Your task to perform on an android device: Search for flights from Zurich to Helsinki Image 0: 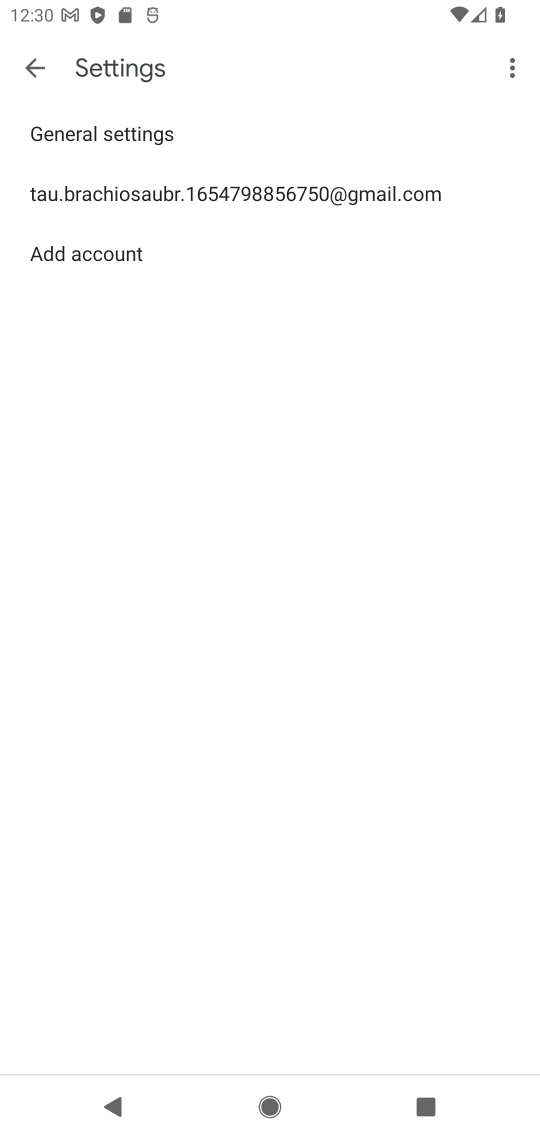
Step 0: press home button
Your task to perform on an android device: Search for flights from Zurich to Helsinki Image 1: 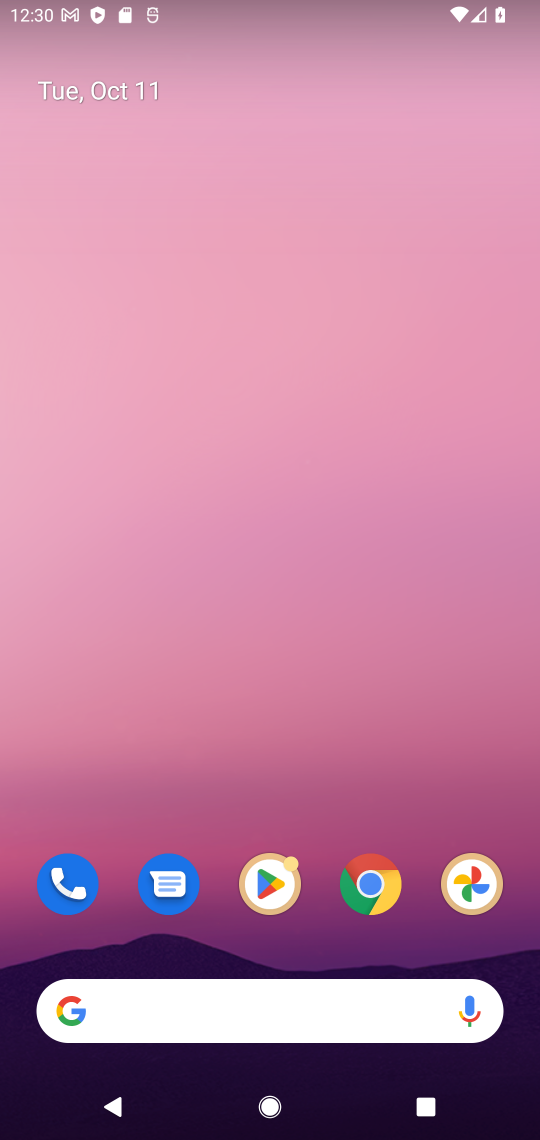
Step 1: drag from (285, 959) to (283, 301)
Your task to perform on an android device: Search for flights from Zurich to Helsinki Image 2: 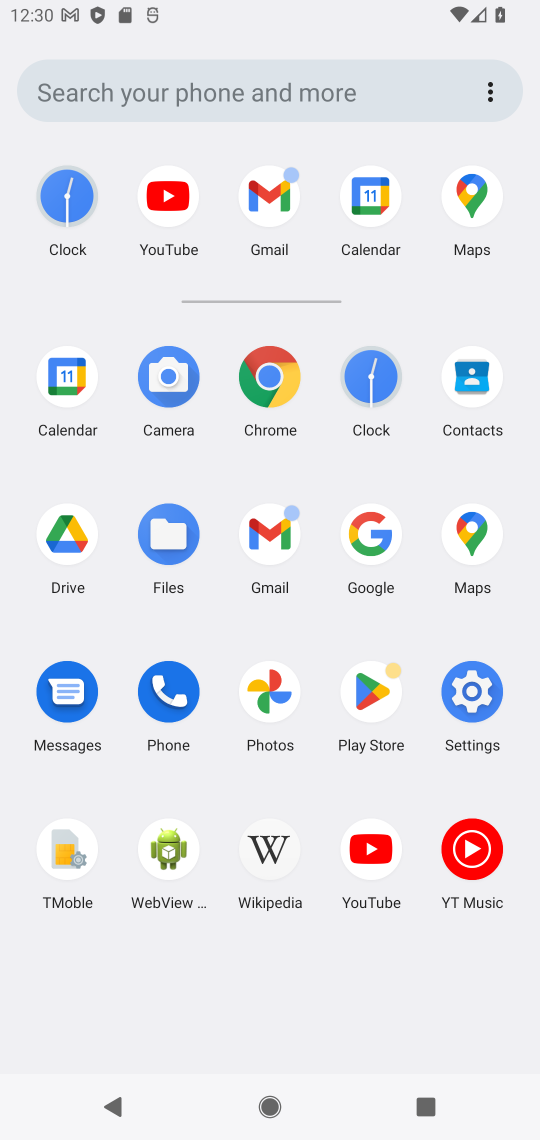
Step 2: click (389, 535)
Your task to perform on an android device: Search for flights from Zurich to Helsinki Image 3: 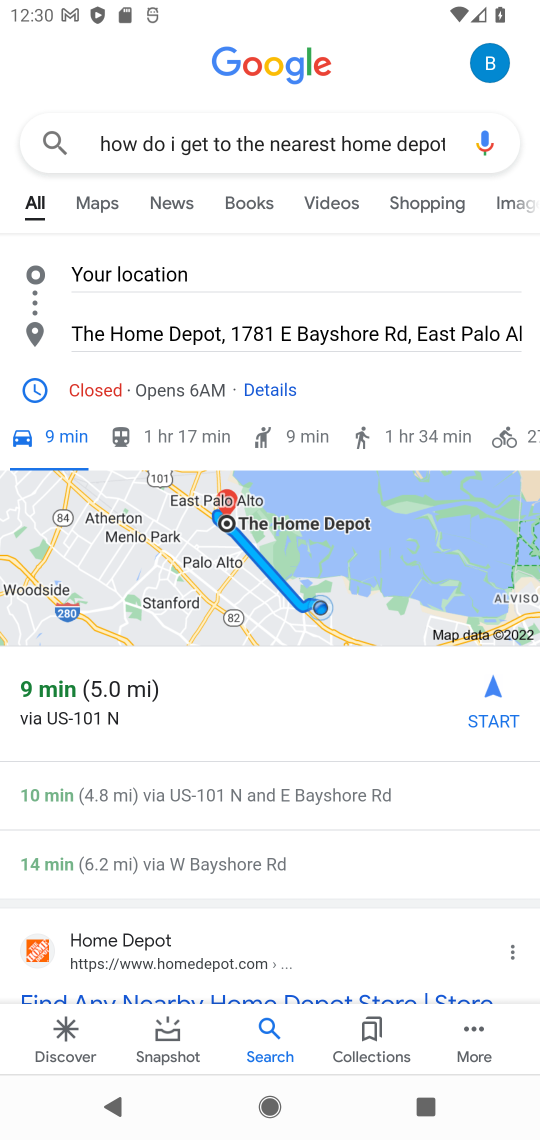
Step 3: click (242, 135)
Your task to perform on an android device: Search for flights from Zurich to Helsinki Image 4: 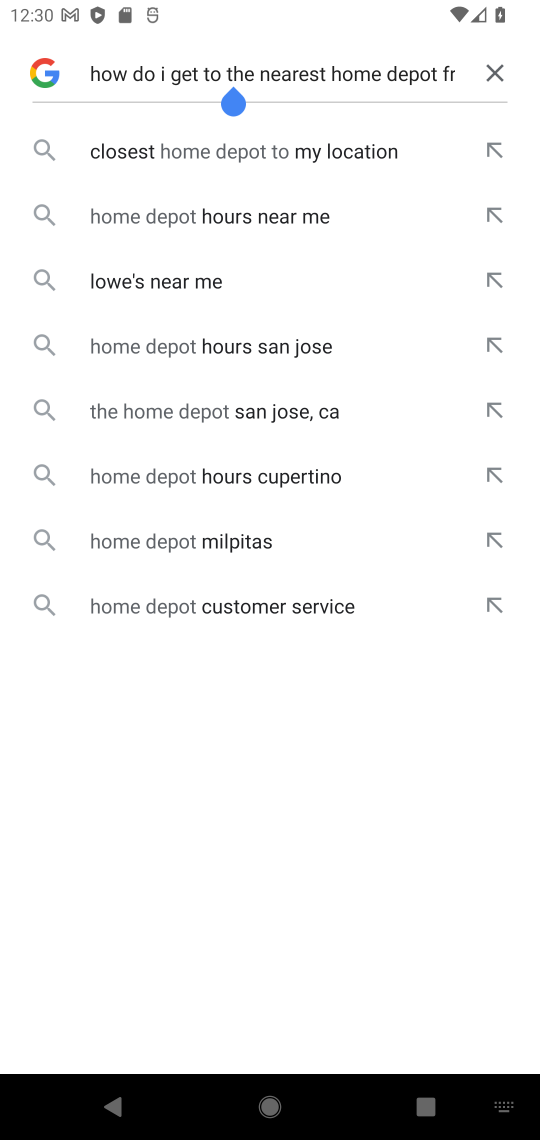
Step 4: click (502, 67)
Your task to perform on an android device: Search for flights from Zurich to Helsinki Image 5: 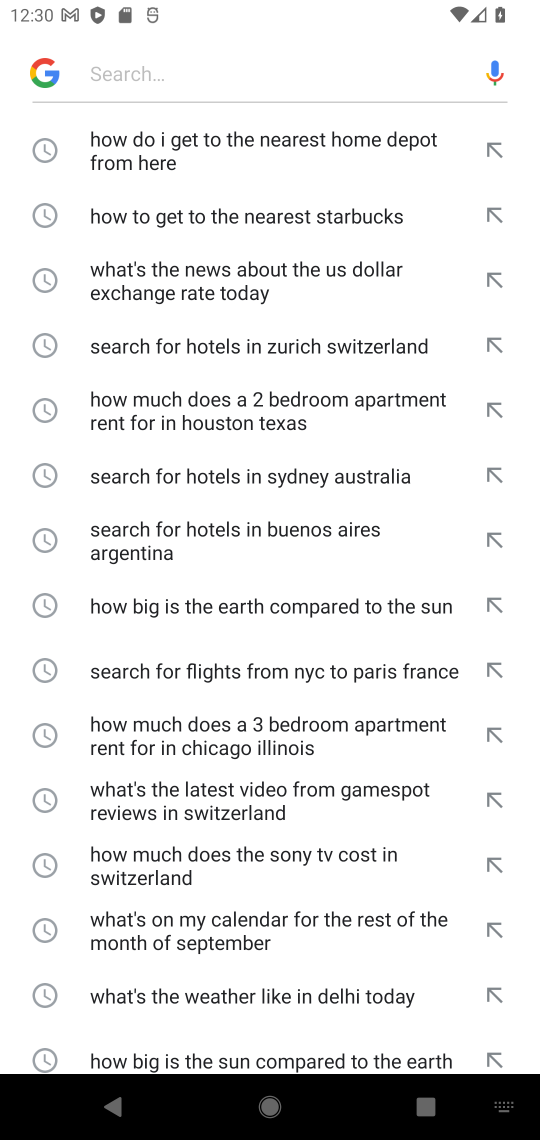
Step 5: type "Search for flights from Zurich to Helsinki"
Your task to perform on an android device: Search for flights from Zurich to Helsinki Image 6: 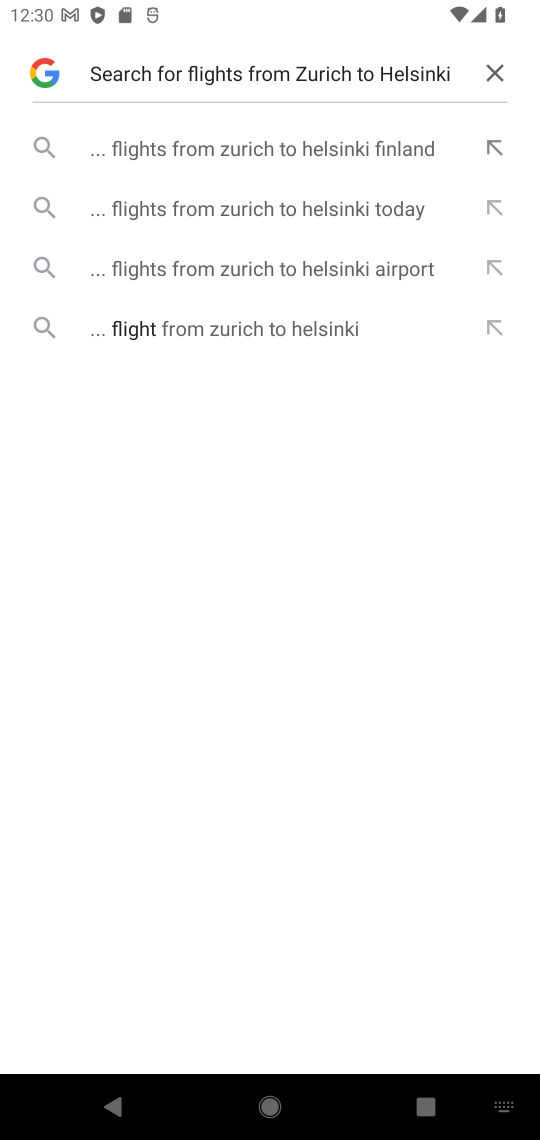
Step 6: click (198, 148)
Your task to perform on an android device: Search for flights from Zurich to Helsinki Image 7: 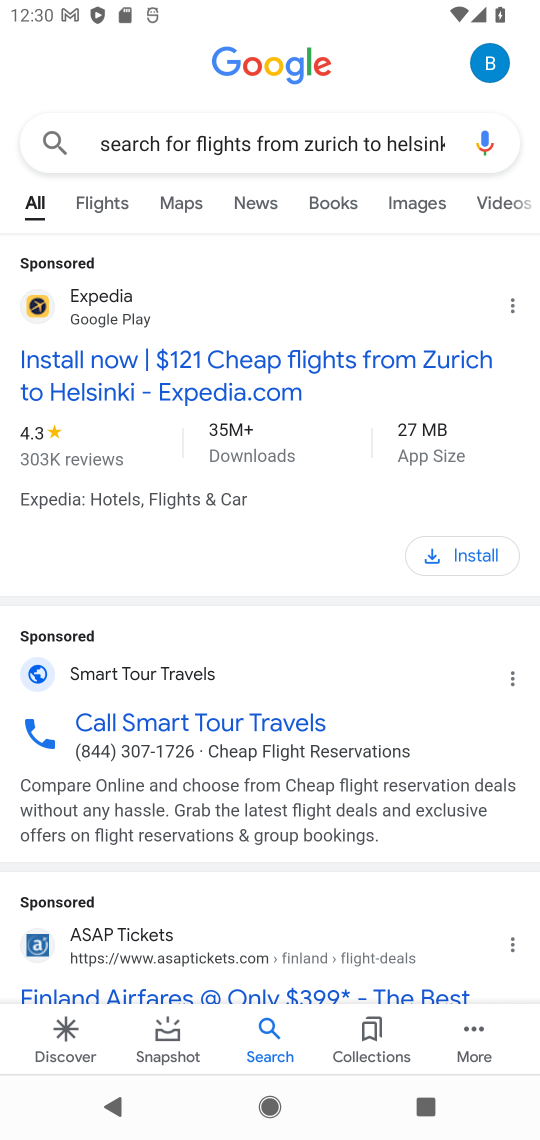
Step 7: task complete